Your task to perform on an android device: change notifications settings Image 0: 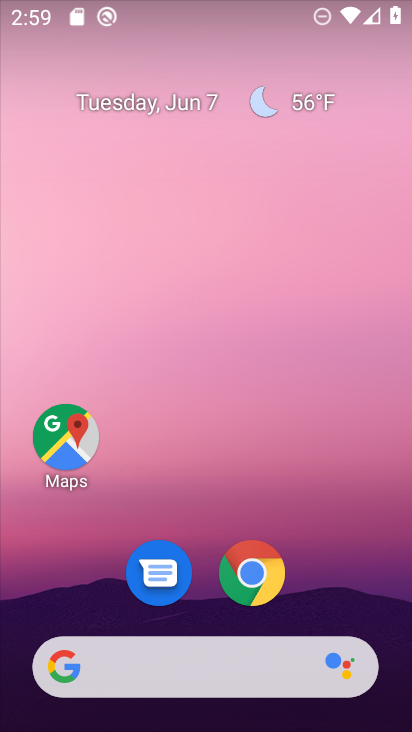
Step 0: drag from (325, 599) to (336, 1)
Your task to perform on an android device: change notifications settings Image 1: 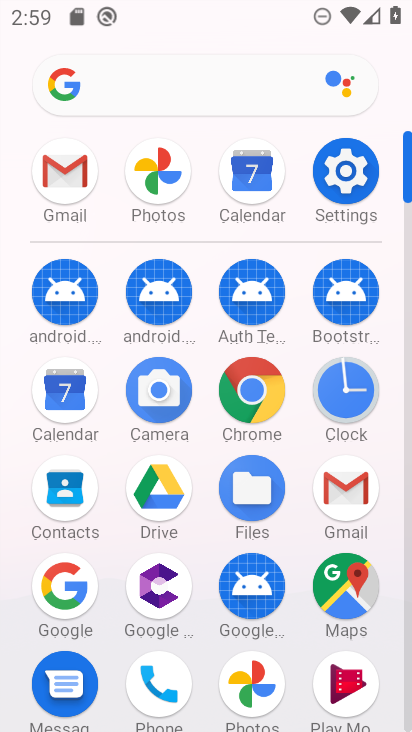
Step 1: click (338, 182)
Your task to perform on an android device: change notifications settings Image 2: 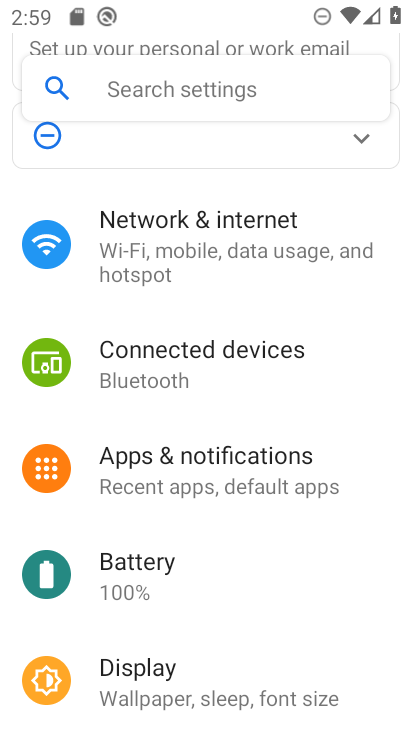
Step 2: click (207, 463)
Your task to perform on an android device: change notifications settings Image 3: 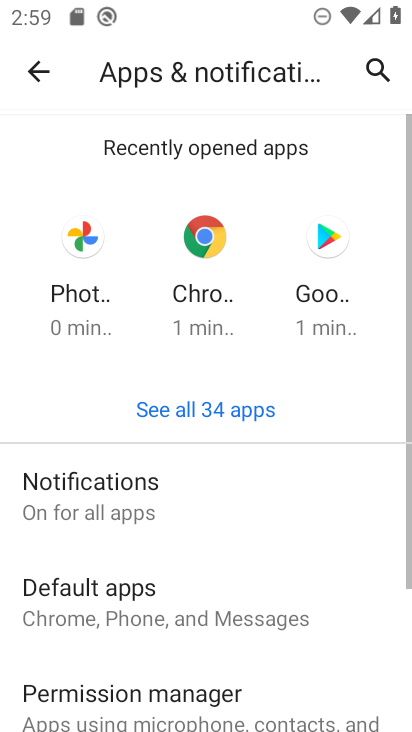
Step 3: click (150, 478)
Your task to perform on an android device: change notifications settings Image 4: 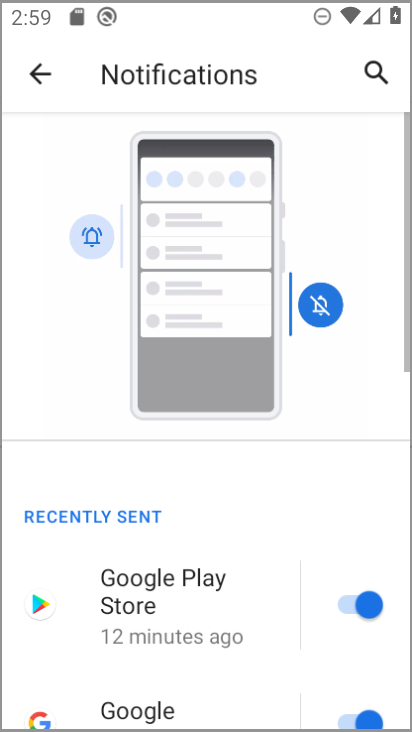
Step 4: drag from (195, 569) to (205, 160)
Your task to perform on an android device: change notifications settings Image 5: 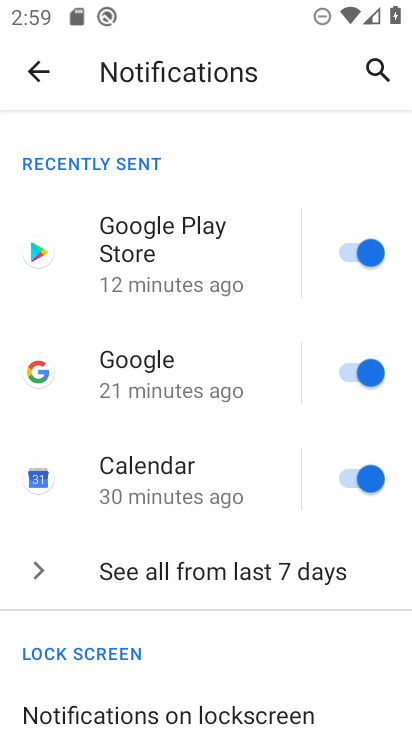
Step 5: click (158, 562)
Your task to perform on an android device: change notifications settings Image 6: 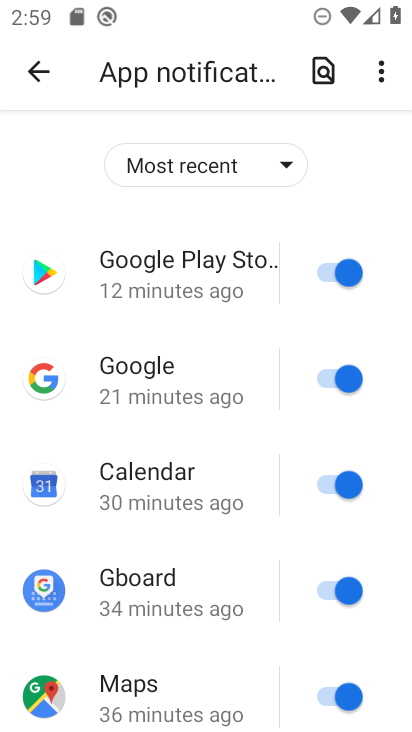
Step 6: click (325, 258)
Your task to perform on an android device: change notifications settings Image 7: 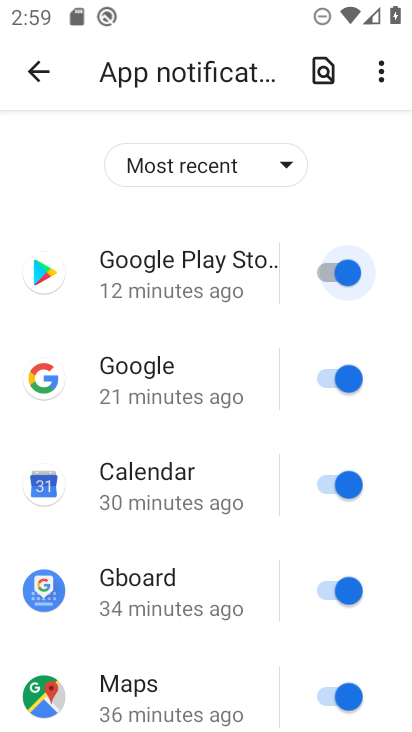
Step 7: click (358, 367)
Your task to perform on an android device: change notifications settings Image 8: 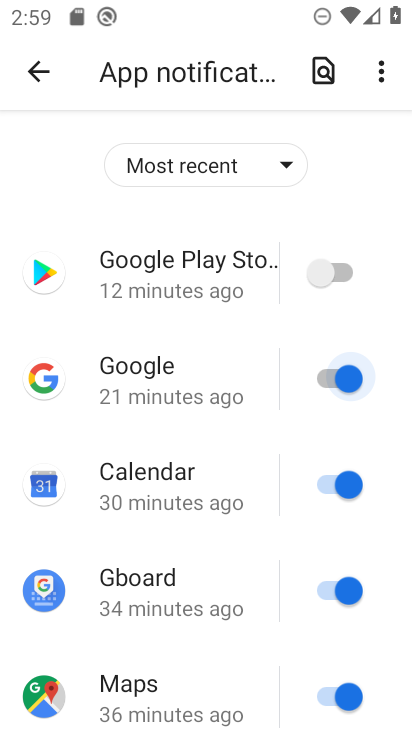
Step 8: click (337, 458)
Your task to perform on an android device: change notifications settings Image 9: 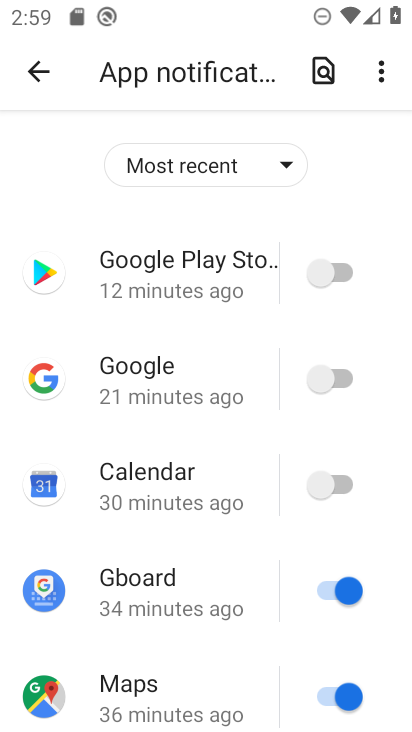
Step 9: click (343, 568)
Your task to perform on an android device: change notifications settings Image 10: 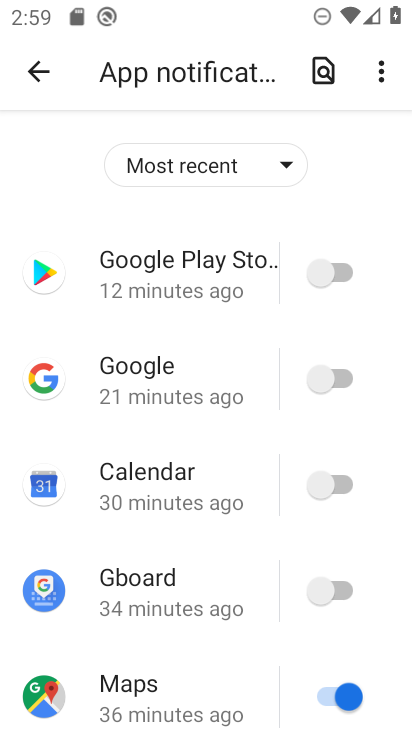
Step 10: click (353, 680)
Your task to perform on an android device: change notifications settings Image 11: 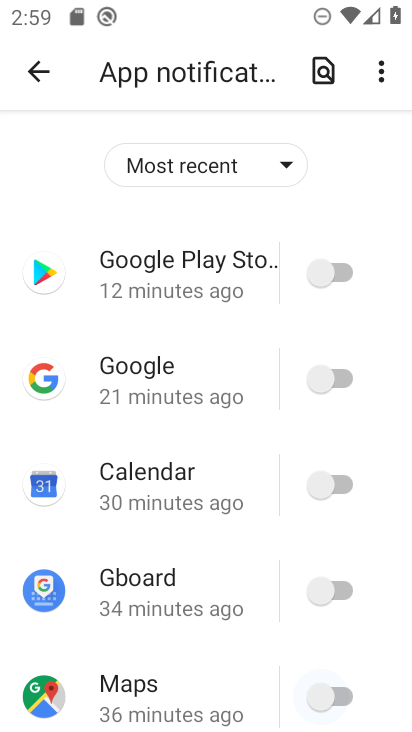
Step 11: drag from (231, 657) to (232, 149)
Your task to perform on an android device: change notifications settings Image 12: 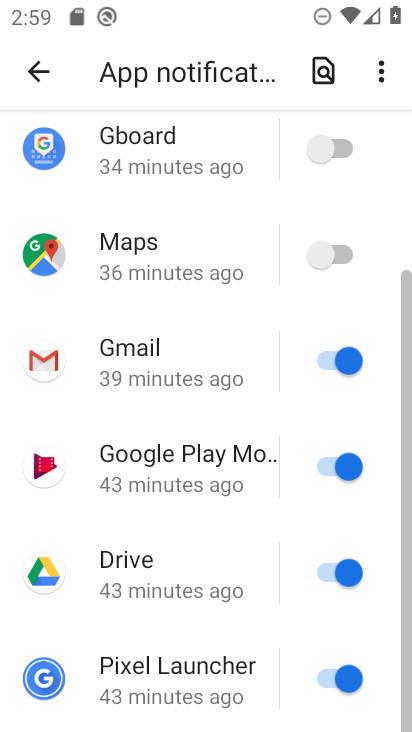
Step 12: click (341, 338)
Your task to perform on an android device: change notifications settings Image 13: 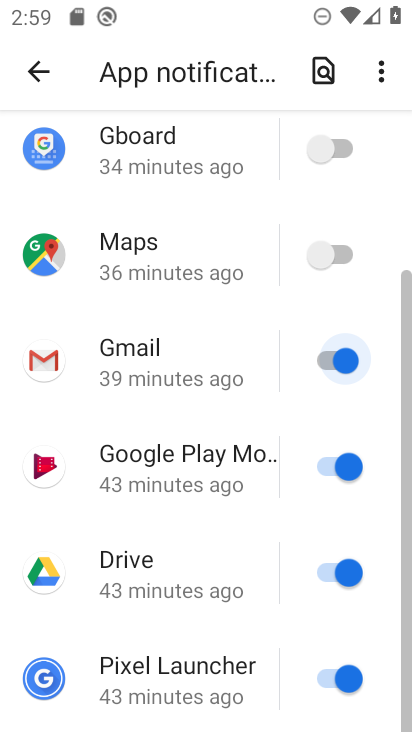
Step 13: click (354, 460)
Your task to perform on an android device: change notifications settings Image 14: 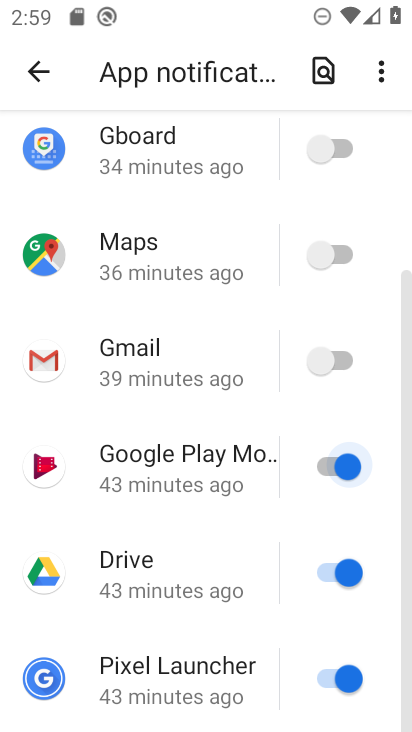
Step 14: click (324, 586)
Your task to perform on an android device: change notifications settings Image 15: 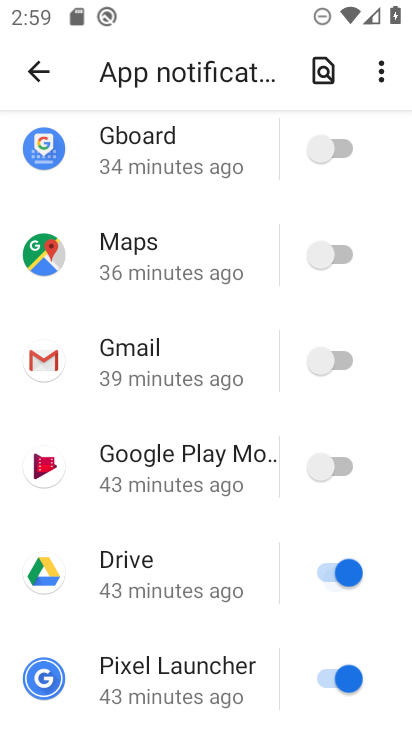
Step 15: click (323, 678)
Your task to perform on an android device: change notifications settings Image 16: 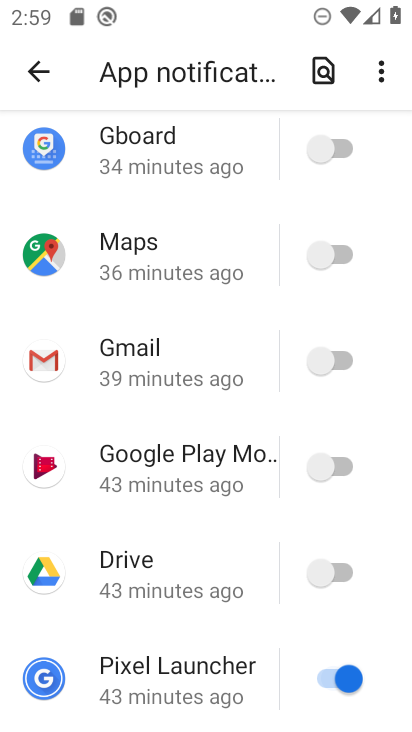
Step 16: drag from (171, 697) to (165, 108)
Your task to perform on an android device: change notifications settings Image 17: 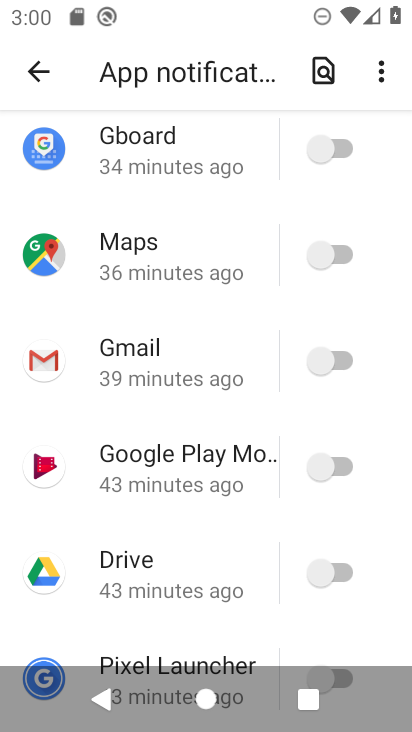
Step 17: click (40, 60)
Your task to perform on an android device: change notifications settings Image 18: 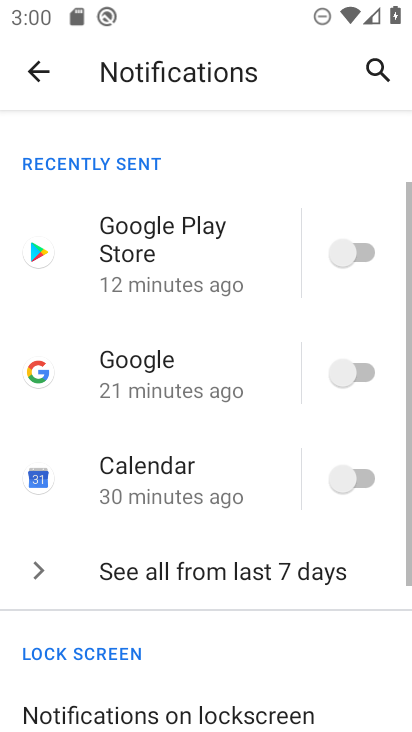
Step 18: drag from (169, 504) to (204, 142)
Your task to perform on an android device: change notifications settings Image 19: 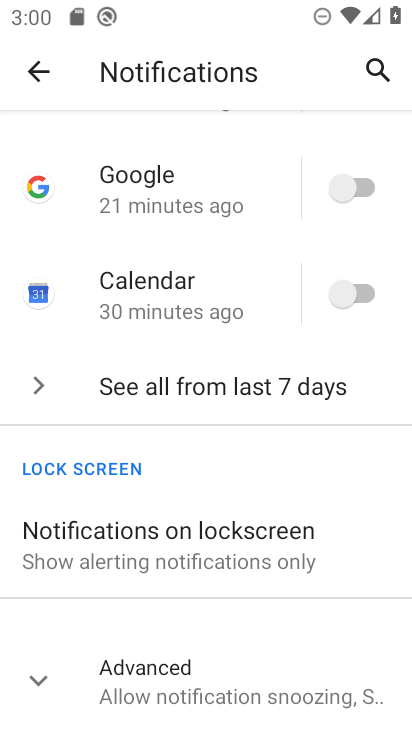
Step 19: click (228, 512)
Your task to perform on an android device: change notifications settings Image 20: 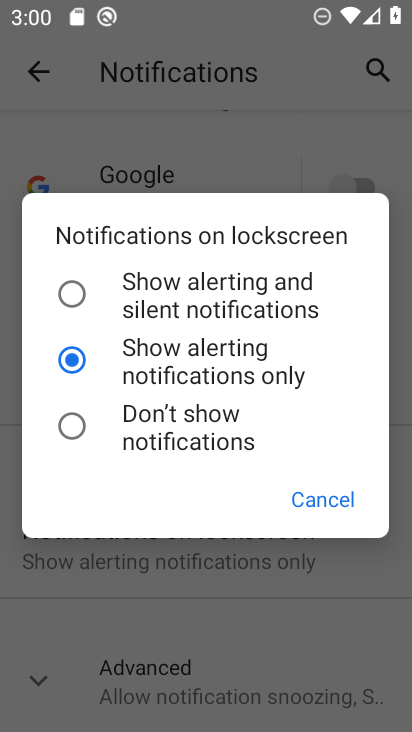
Step 20: click (209, 282)
Your task to perform on an android device: change notifications settings Image 21: 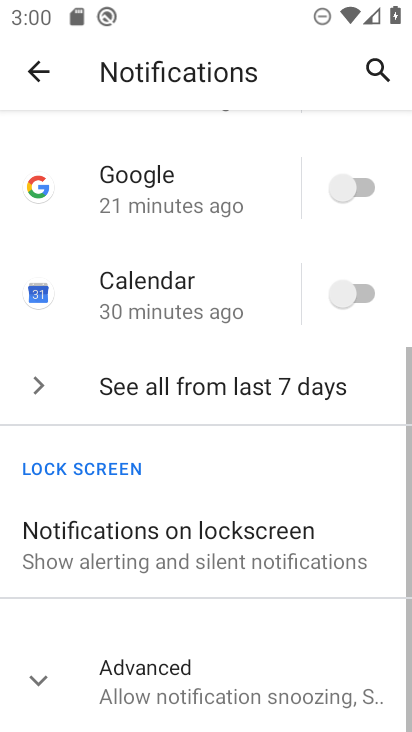
Step 21: click (156, 670)
Your task to perform on an android device: change notifications settings Image 22: 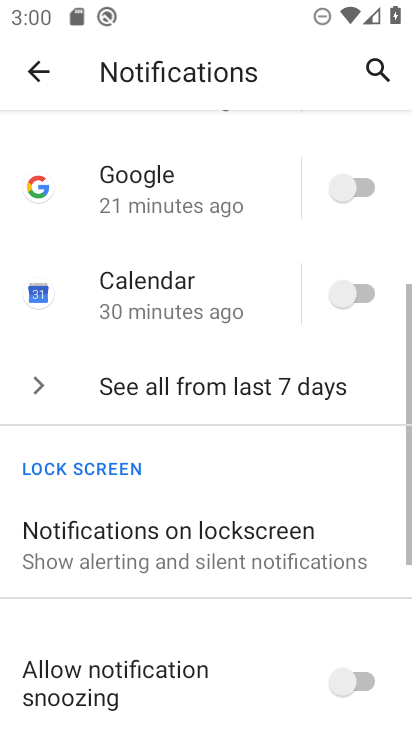
Step 22: drag from (226, 630) to (242, 212)
Your task to perform on an android device: change notifications settings Image 23: 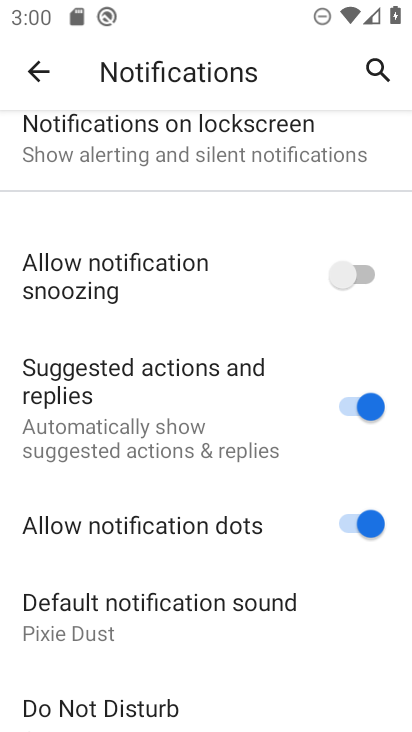
Step 23: click (356, 280)
Your task to perform on an android device: change notifications settings Image 24: 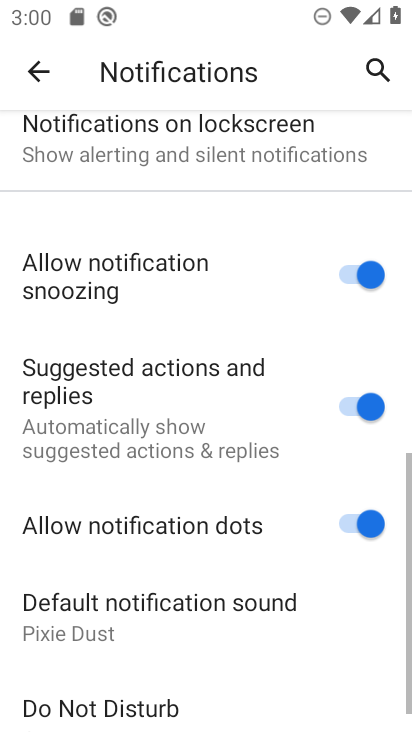
Step 24: click (335, 404)
Your task to perform on an android device: change notifications settings Image 25: 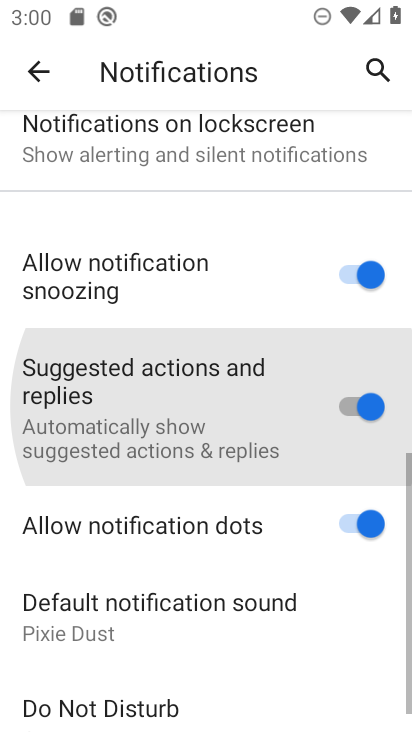
Step 25: click (359, 530)
Your task to perform on an android device: change notifications settings Image 26: 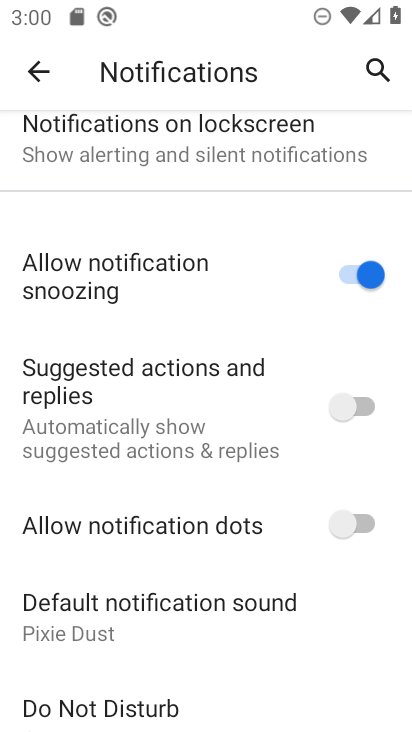
Step 26: task complete